Your task to perform on an android device: Clear the cart on newegg. Image 0: 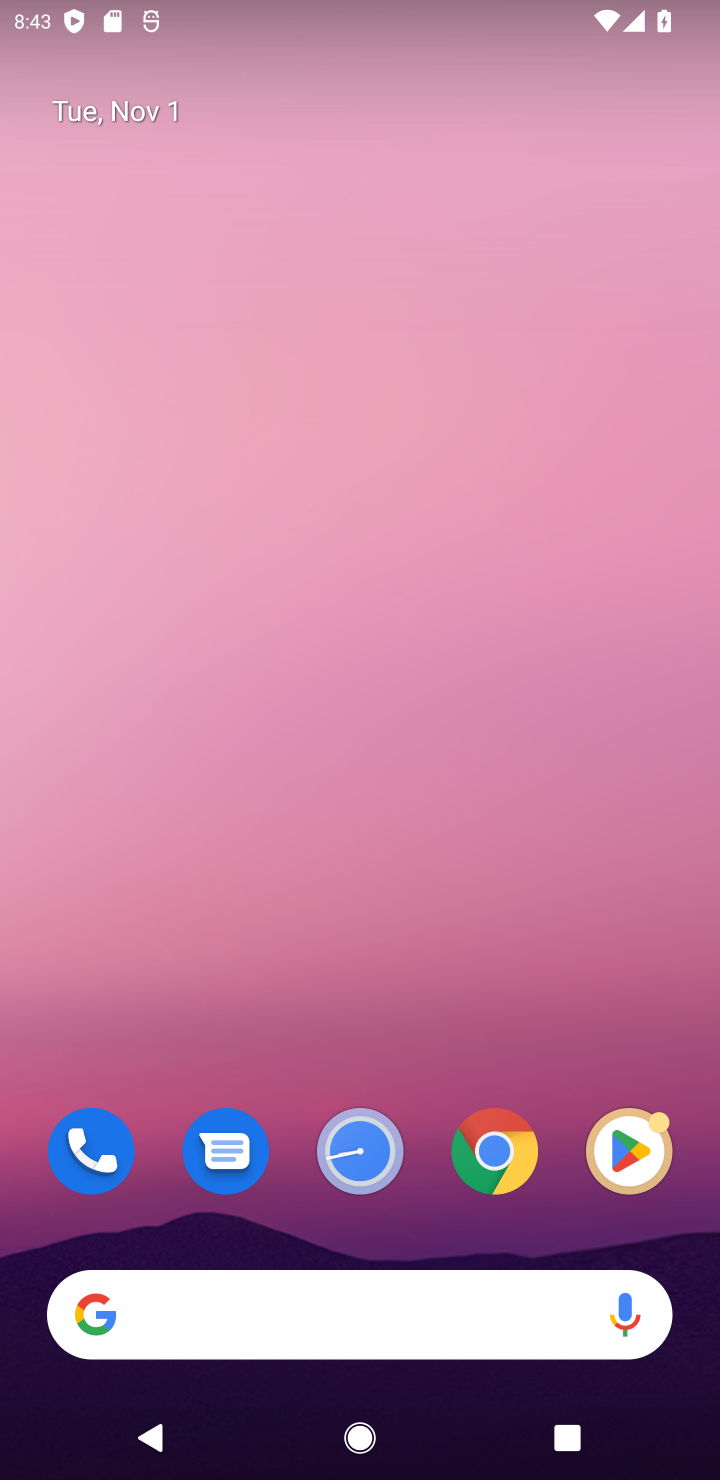
Step 0: click (500, 1180)
Your task to perform on an android device: Clear the cart on newegg. Image 1: 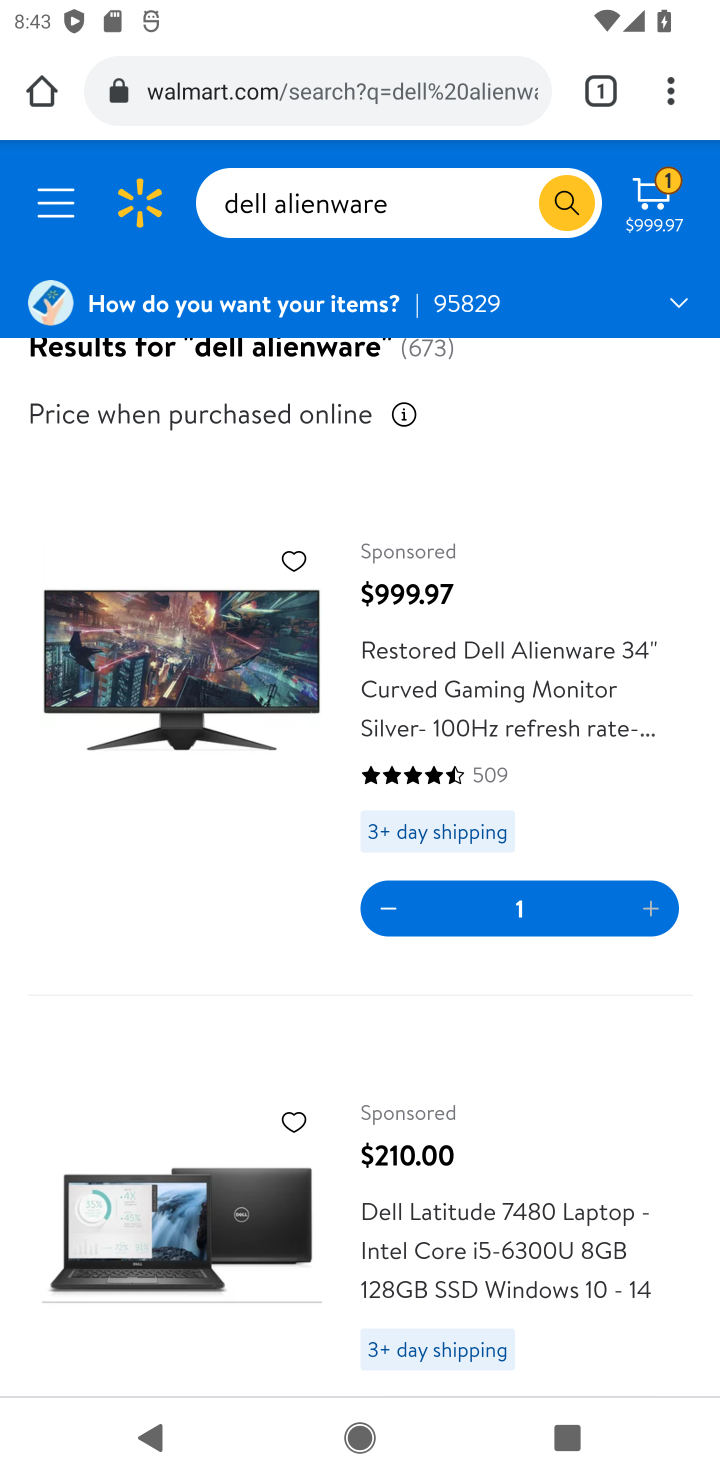
Step 1: click (610, 98)
Your task to perform on an android device: Clear the cart on newegg. Image 2: 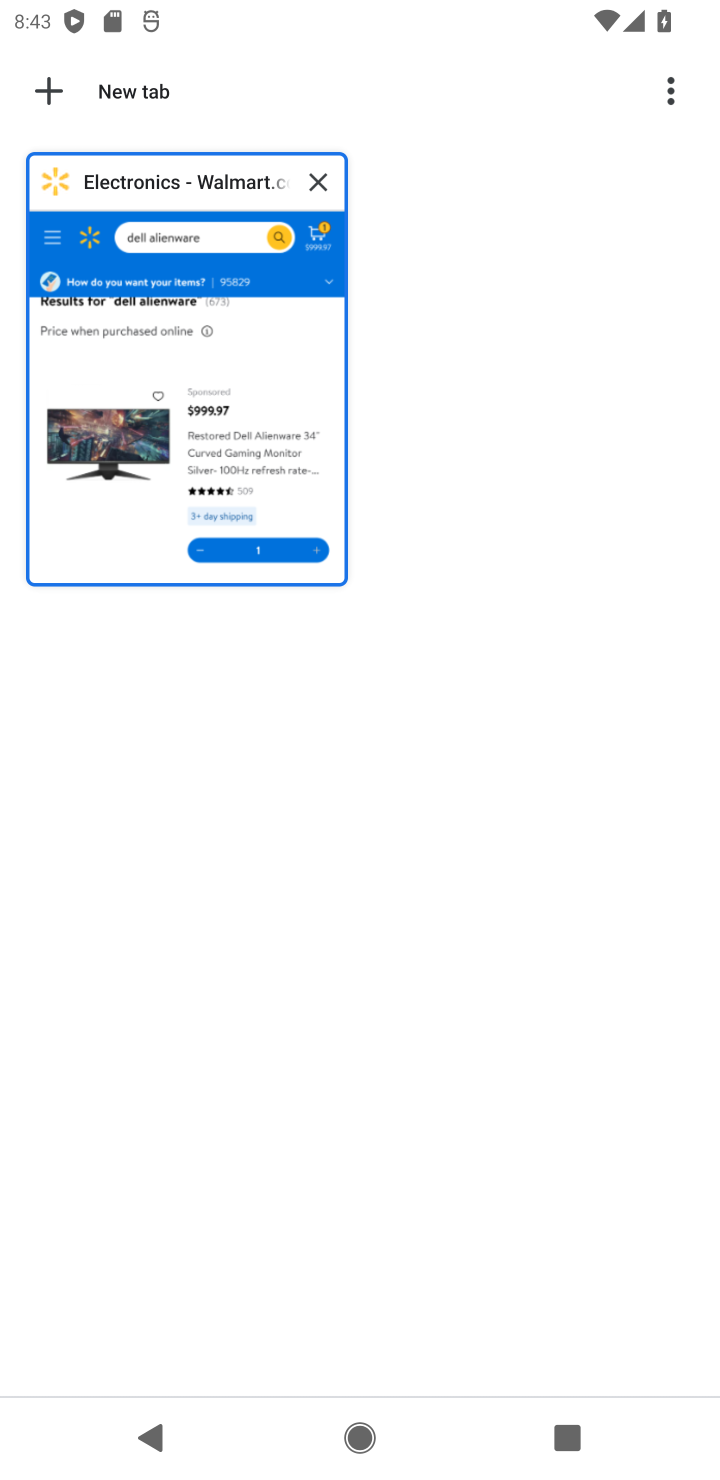
Step 2: click (46, 96)
Your task to perform on an android device: Clear the cart on newegg. Image 3: 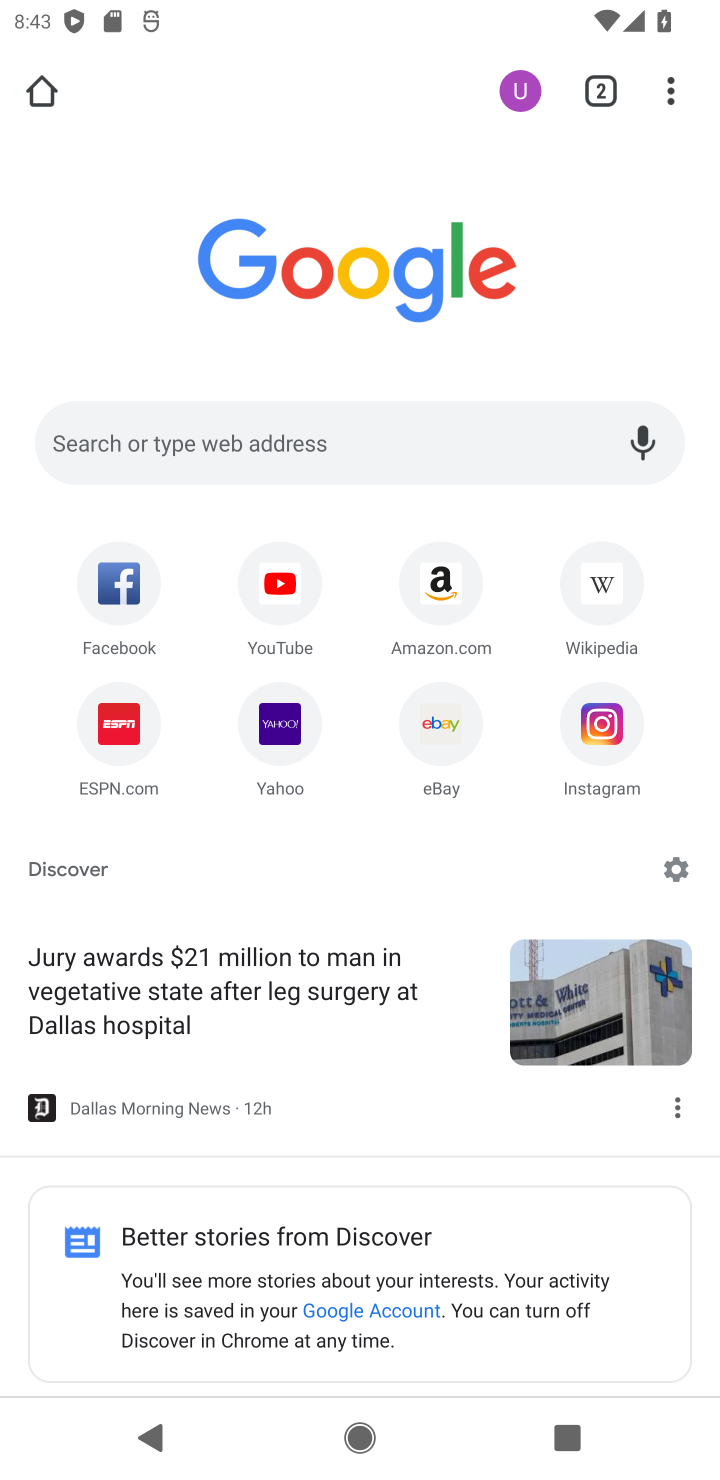
Step 3: click (378, 452)
Your task to perform on an android device: Clear the cart on newegg. Image 4: 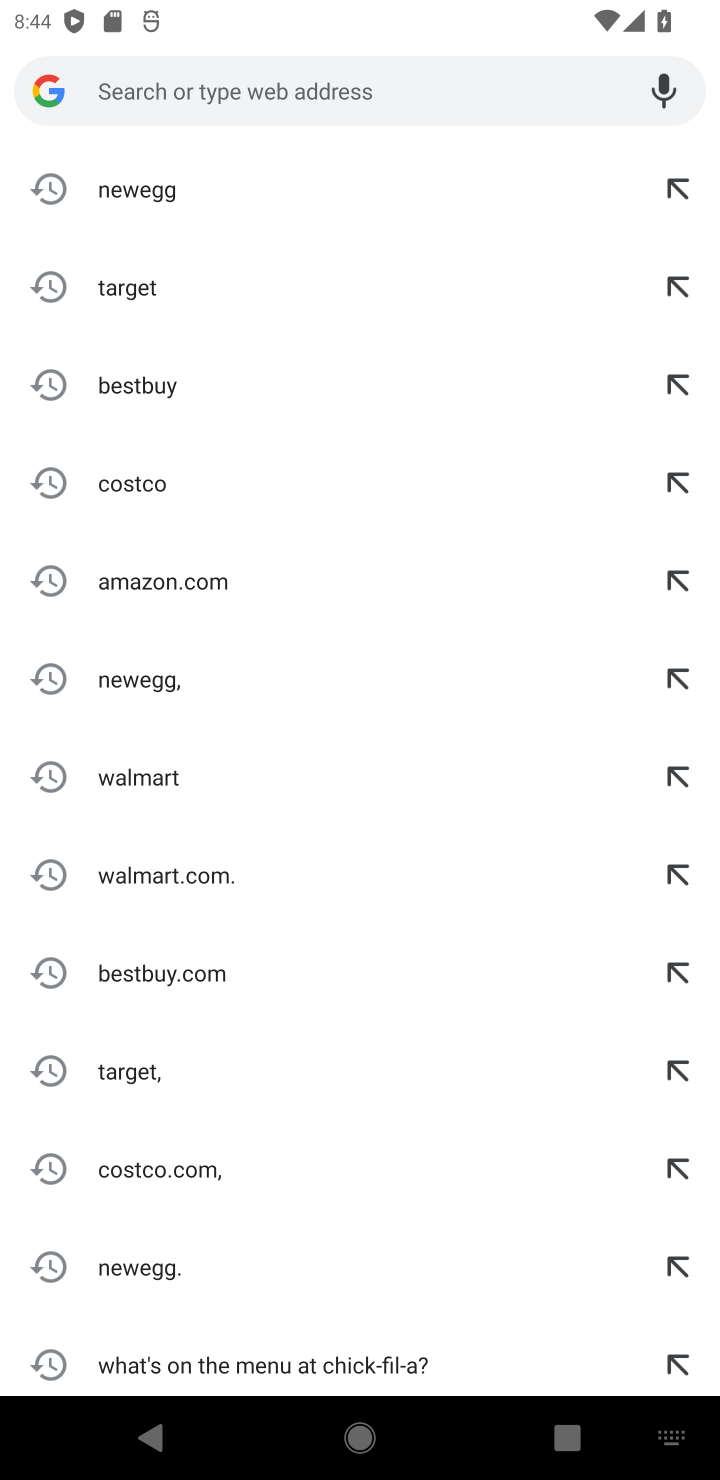
Step 4: press enter
Your task to perform on an android device: Clear the cart on newegg. Image 5: 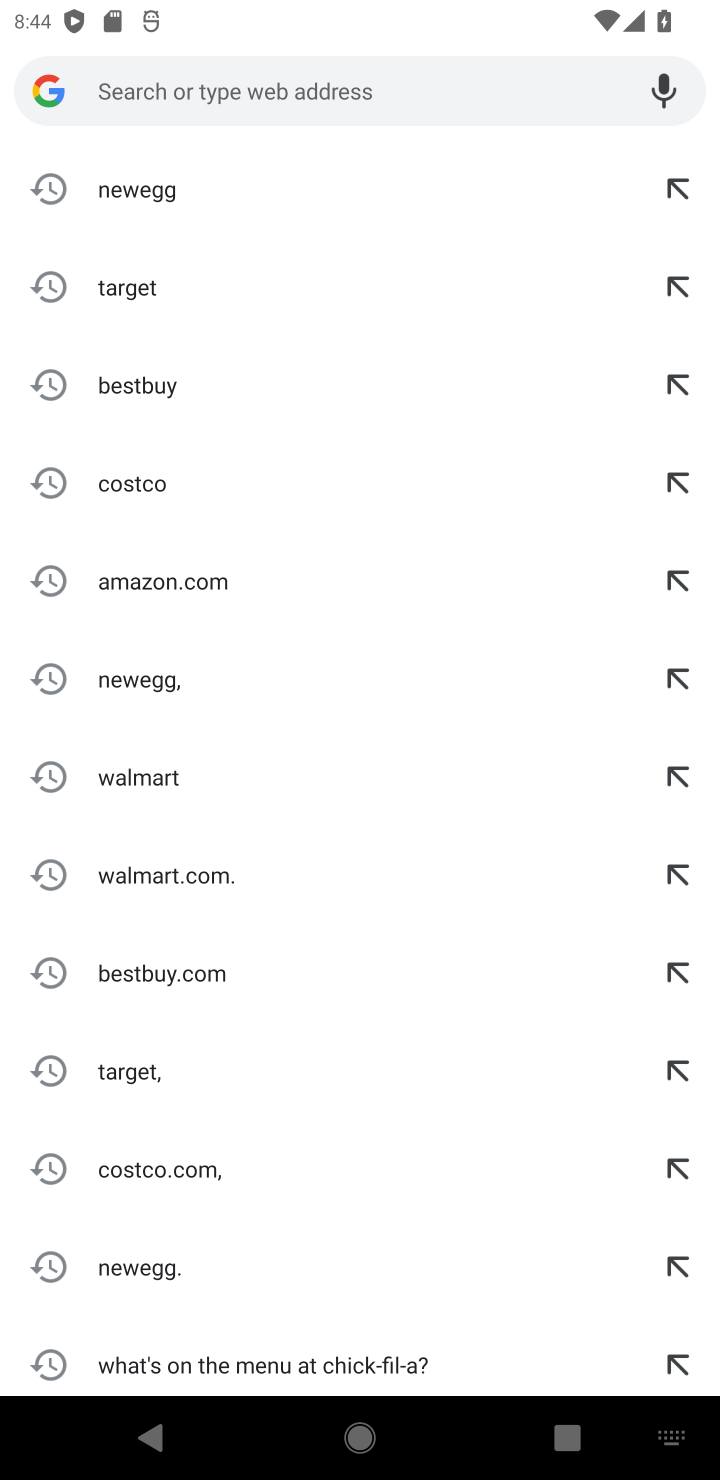
Step 5: type "newegg"
Your task to perform on an android device: Clear the cart on newegg. Image 6: 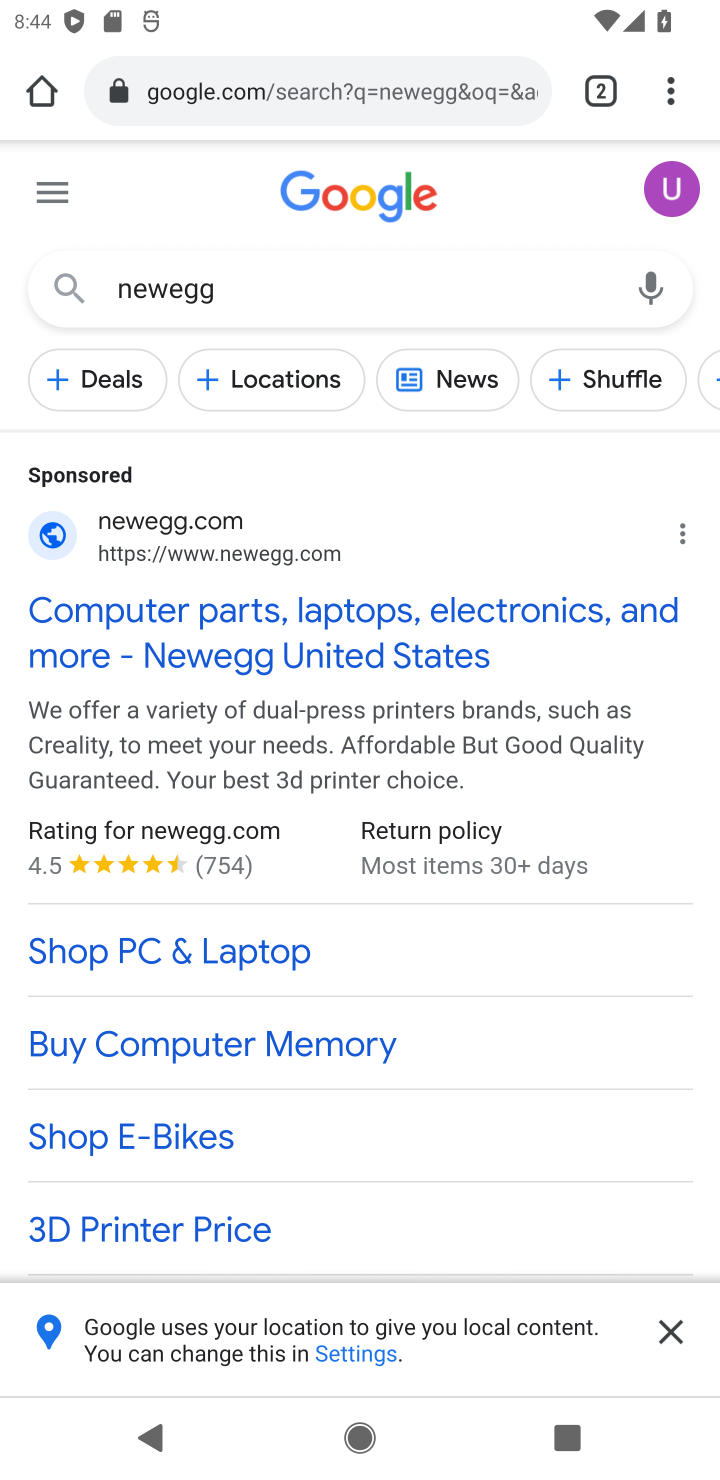
Step 6: drag from (380, 1080) to (441, 75)
Your task to perform on an android device: Clear the cart on newegg. Image 7: 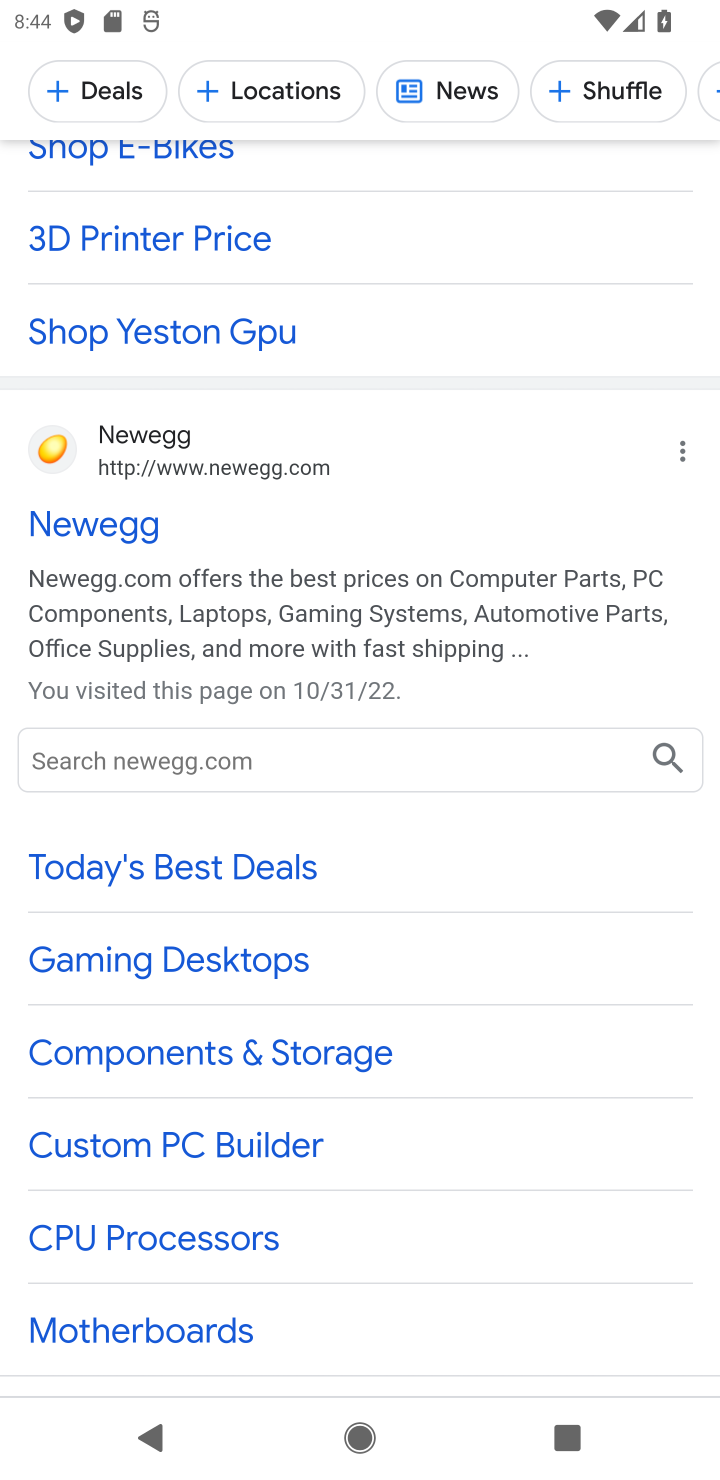
Step 7: click (78, 528)
Your task to perform on an android device: Clear the cart on newegg. Image 8: 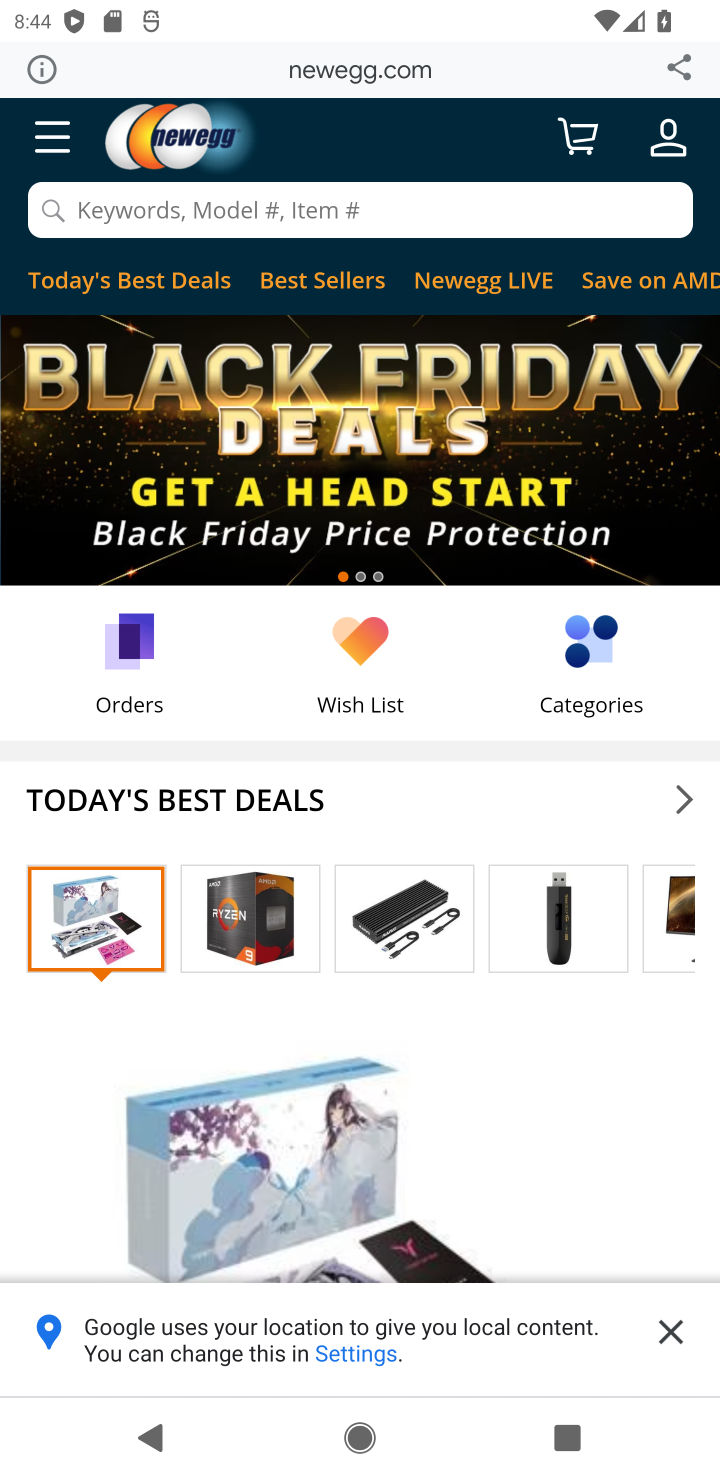
Step 8: click (664, 1329)
Your task to perform on an android device: Clear the cart on newegg. Image 9: 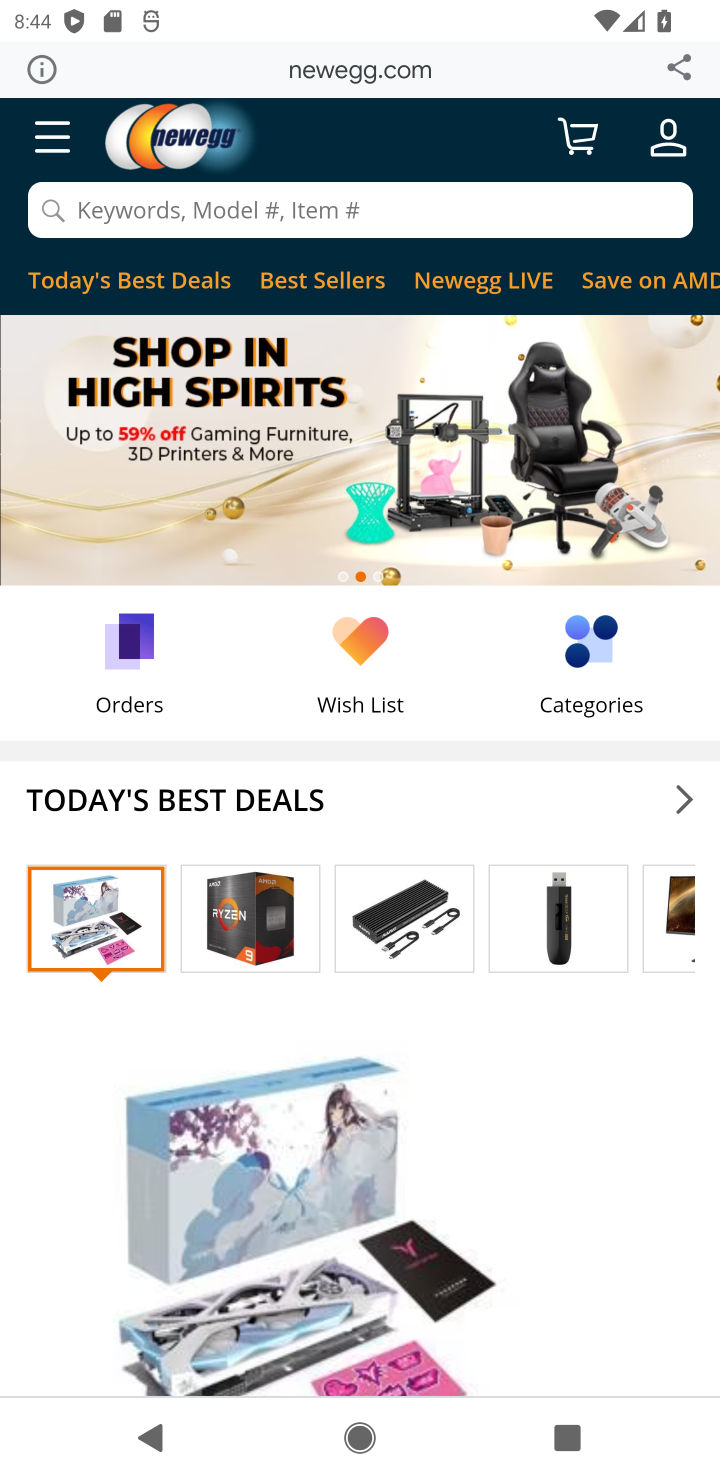
Step 9: click (577, 141)
Your task to perform on an android device: Clear the cart on newegg. Image 10: 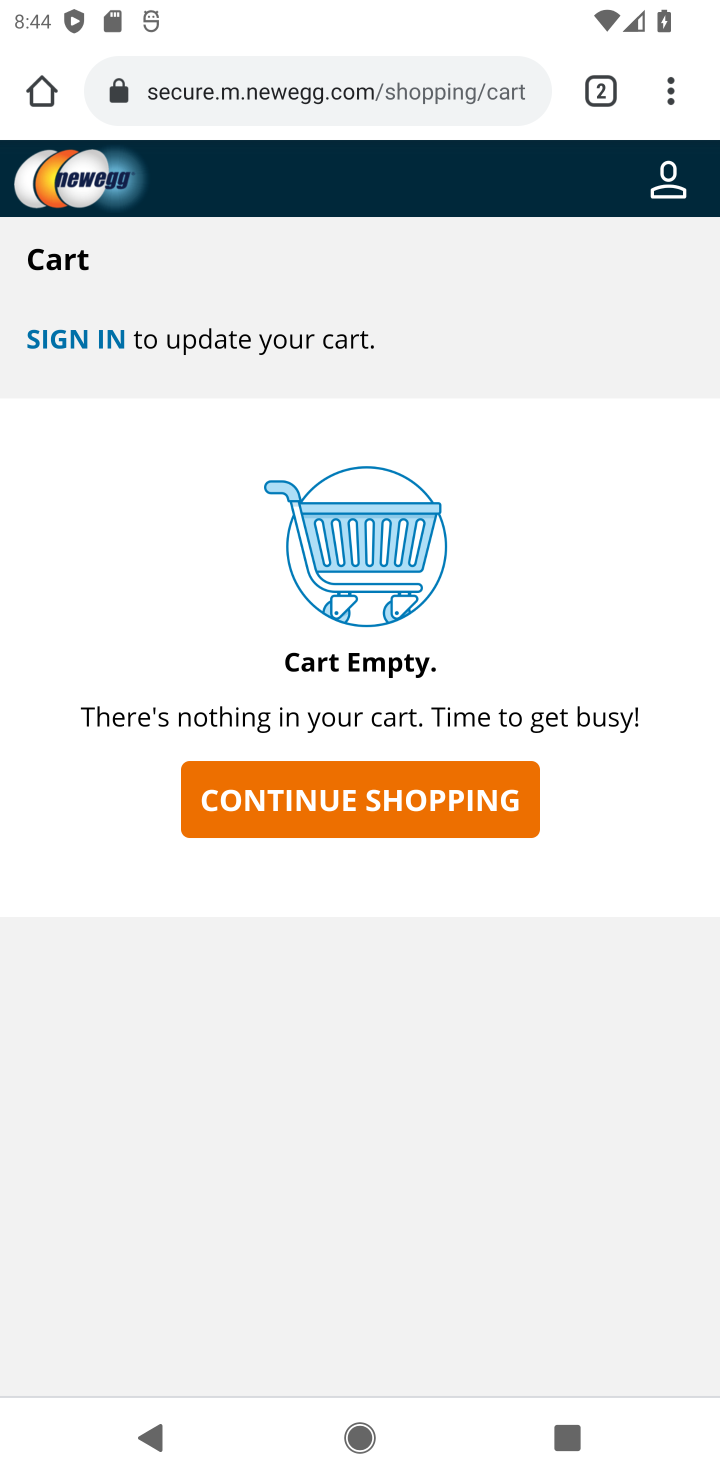
Step 10: task complete